Your task to perform on an android device: Show me popular games on the Play Store Image 0: 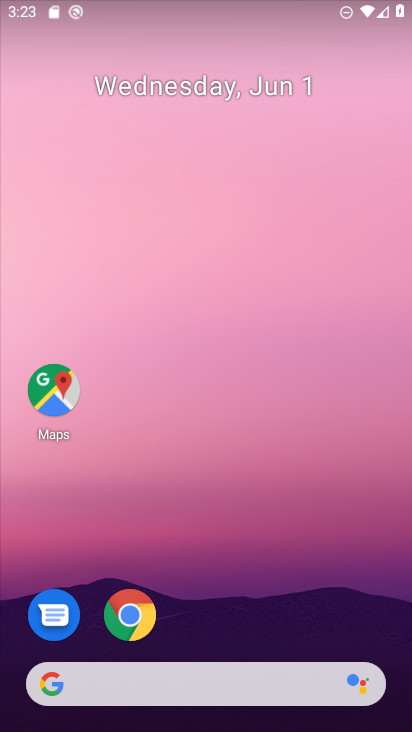
Step 0: press home button
Your task to perform on an android device: Show me popular games on the Play Store Image 1: 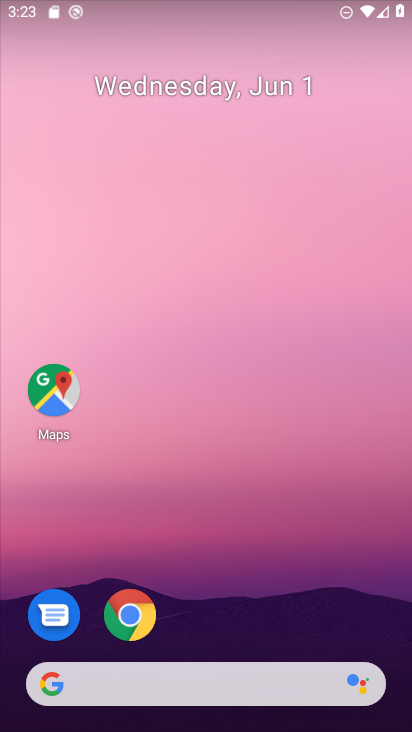
Step 1: drag from (213, 640) to (231, 308)
Your task to perform on an android device: Show me popular games on the Play Store Image 2: 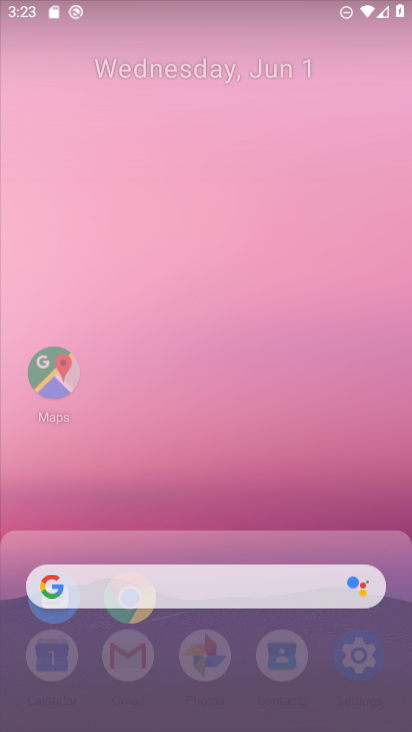
Step 2: click (242, 188)
Your task to perform on an android device: Show me popular games on the Play Store Image 3: 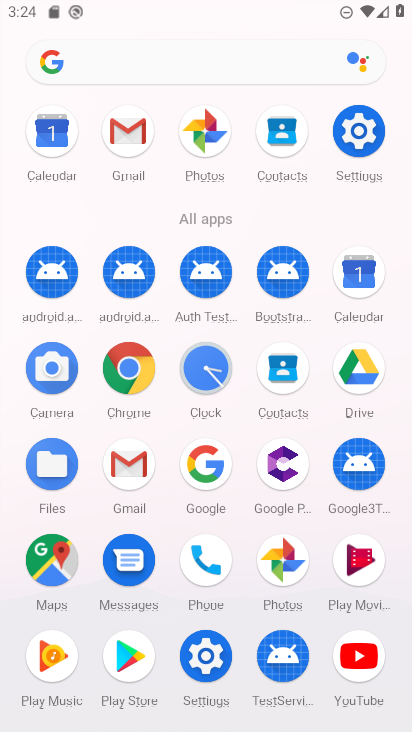
Step 3: click (127, 651)
Your task to perform on an android device: Show me popular games on the Play Store Image 4: 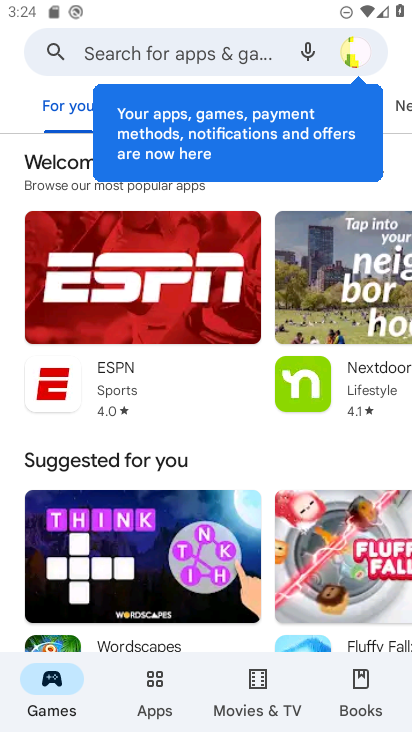
Step 4: drag from (265, 619) to (296, 258)
Your task to perform on an android device: Show me popular games on the Play Store Image 5: 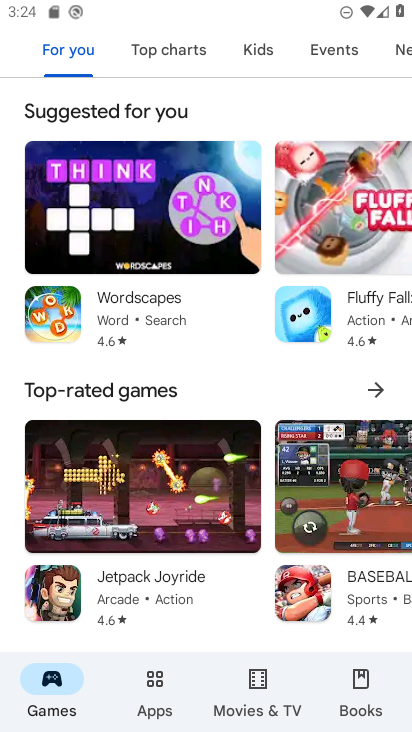
Step 5: drag from (263, 608) to (276, 255)
Your task to perform on an android device: Show me popular games on the Play Store Image 6: 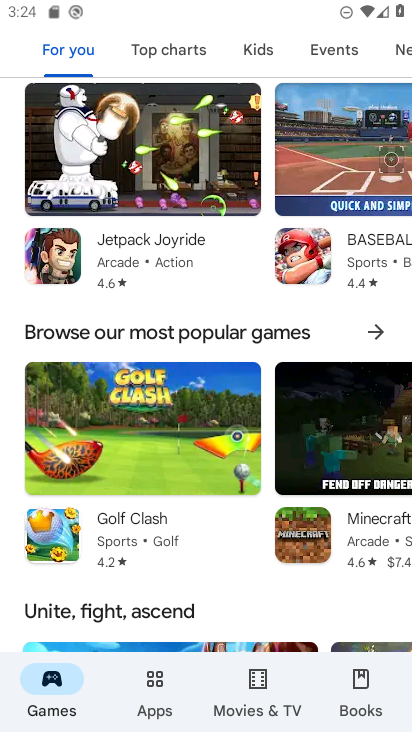
Step 6: click (371, 332)
Your task to perform on an android device: Show me popular games on the Play Store Image 7: 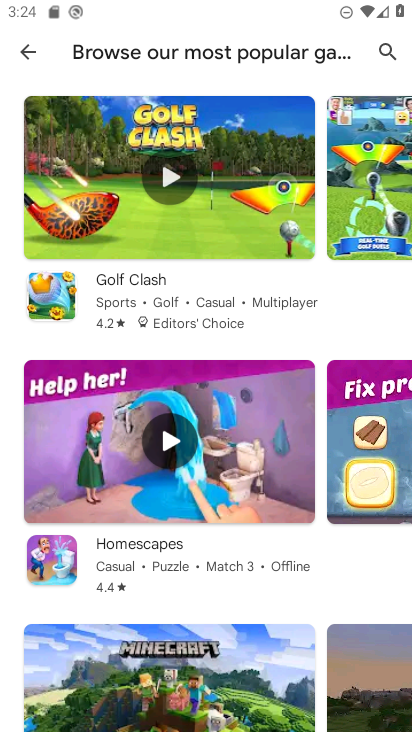
Step 7: drag from (299, 550) to (307, 400)
Your task to perform on an android device: Show me popular games on the Play Store Image 8: 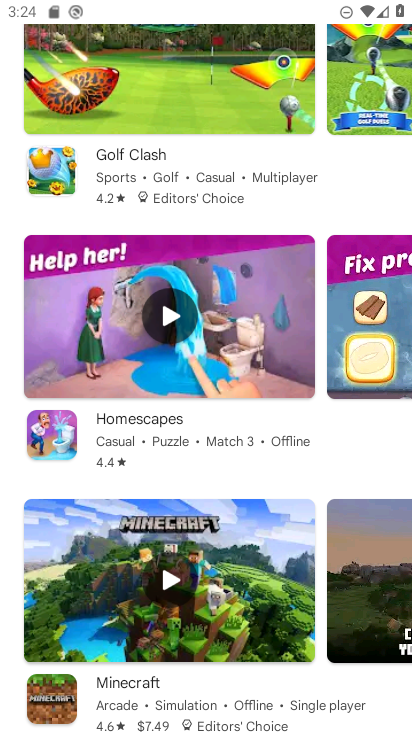
Step 8: click (313, 285)
Your task to perform on an android device: Show me popular games on the Play Store Image 9: 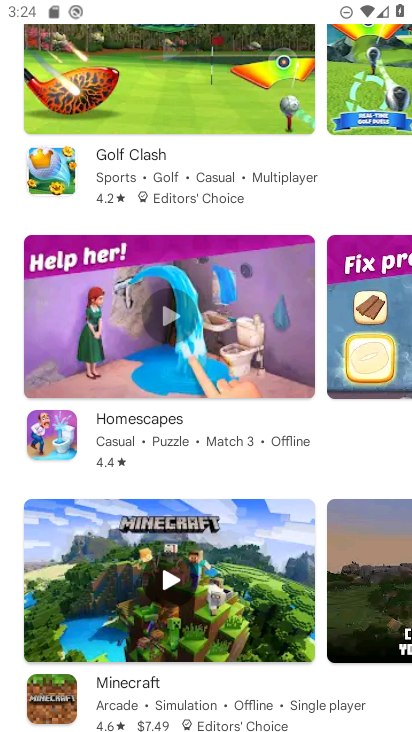
Step 9: task complete